Your task to perform on an android device: Open battery settings Image 0: 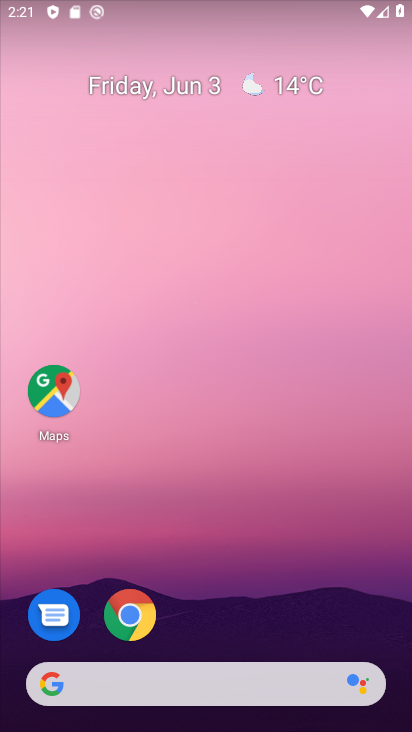
Step 0: press home button
Your task to perform on an android device: Open battery settings Image 1: 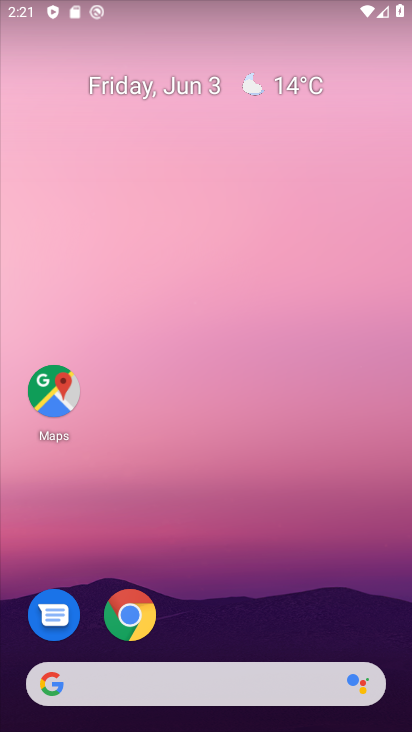
Step 1: click (234, 217)
Your task to perform on an android device: Open battery settings Image 2: 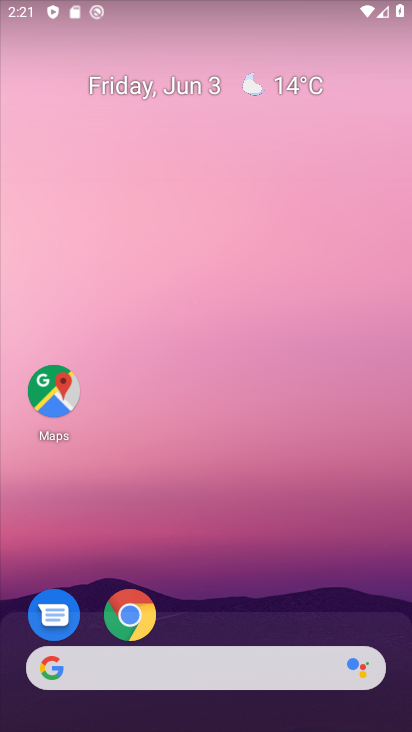
Step 2: drag from (259, 588) to (243, 309)
Your task to perform on an android device: Open battery settings Image 3: 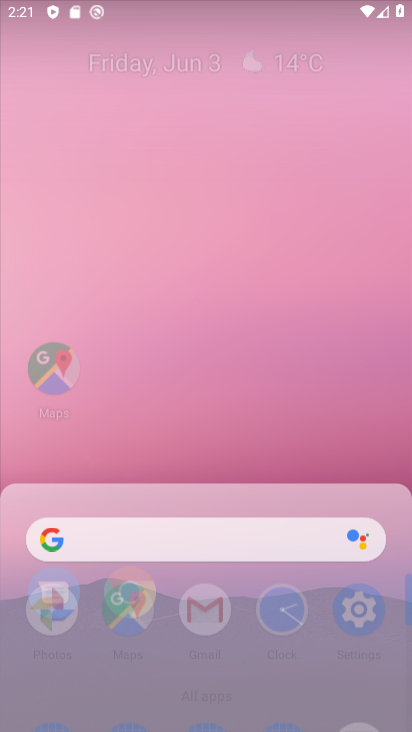
Step 3: drag from (342, 519) to (245, 10)
Your task to perform on an android device: Open battery settings Image 4: 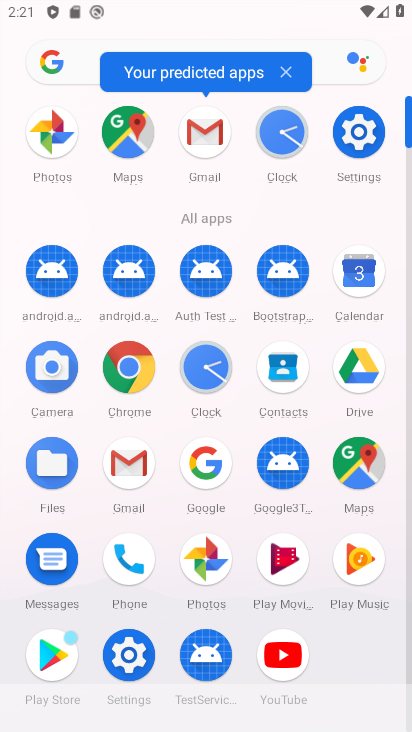
Step 4: click (353, 143)
Your task to perform on an android device: Open battery settings Image 5: 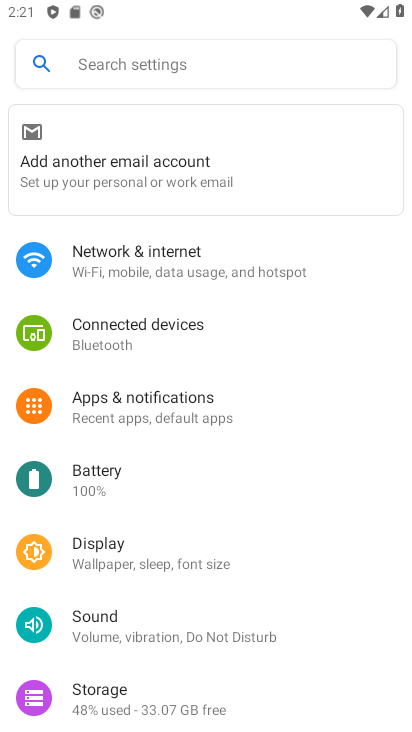
Step 5: click (159, 470)
Your task to perform on an android device: Open battery settings Image 6: 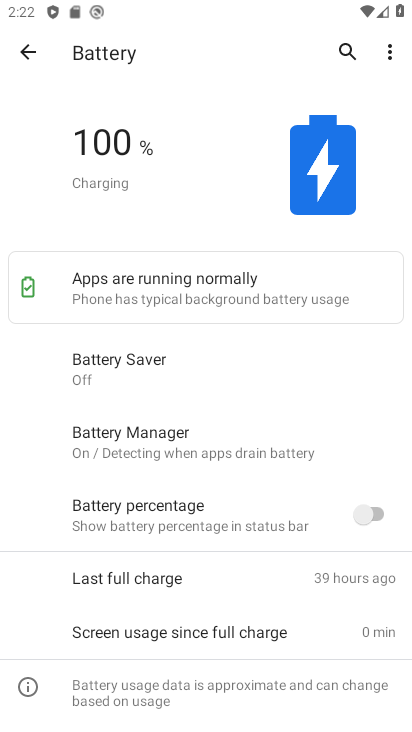
Step 6: task complete